Your task to perform on an android device: move an email to a new category in the gmail app Image 0: 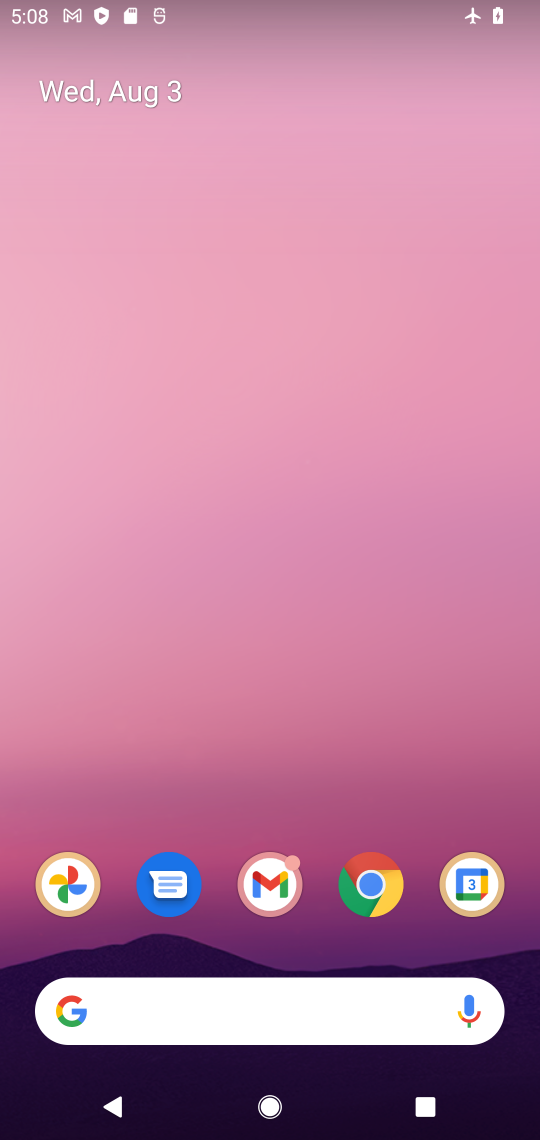
Step 0: drag from (352, 1028) to (267, 133)
Your task to perform on an android device: move an email to a new category in the gmail app Image 1: 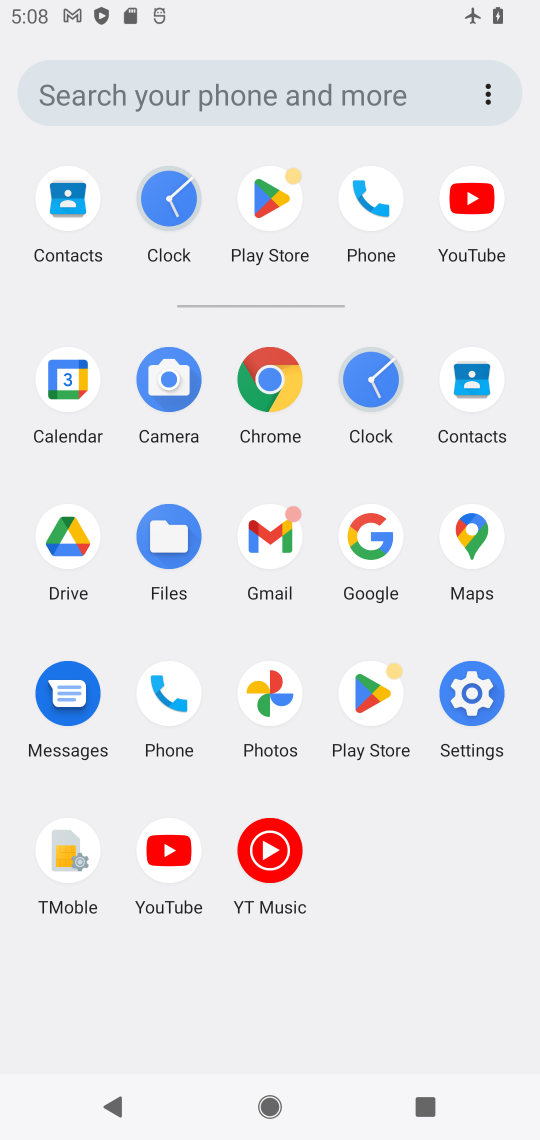
Step 1: click (452, 701)
Your task to perform on an android device: move an email to a new category in the gmail app Image 2: 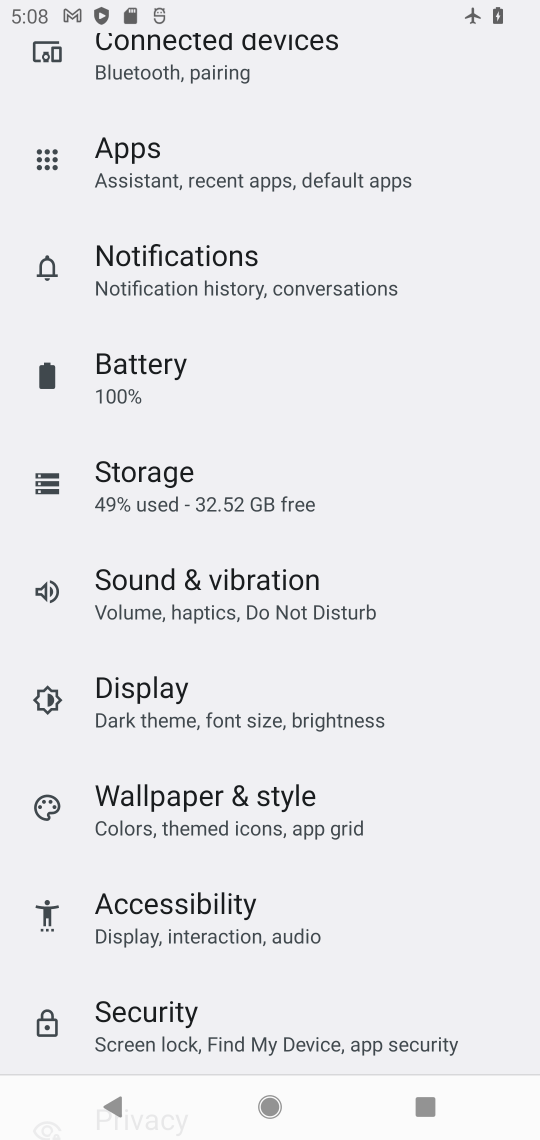
Step 2: drag from (340, 287) to (181, 955)
Your task to perform on an android device: move an email to a new category in the gmail app Image 3: 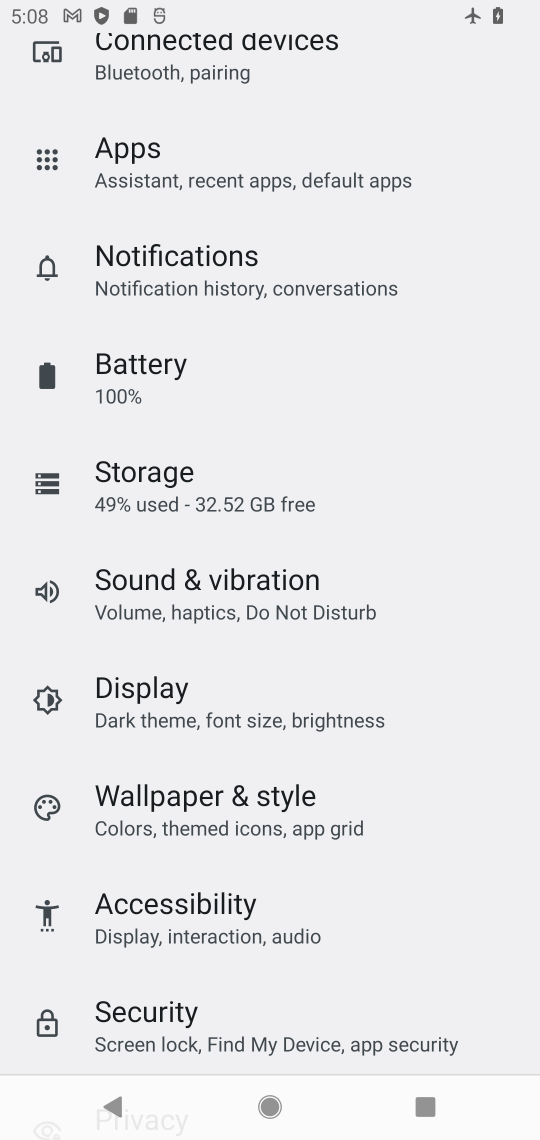
Step 3: drag from (239, 314) to (169, 1099)
Your task to perform on an android device: move an email to a new category in the gmail app Image 4: 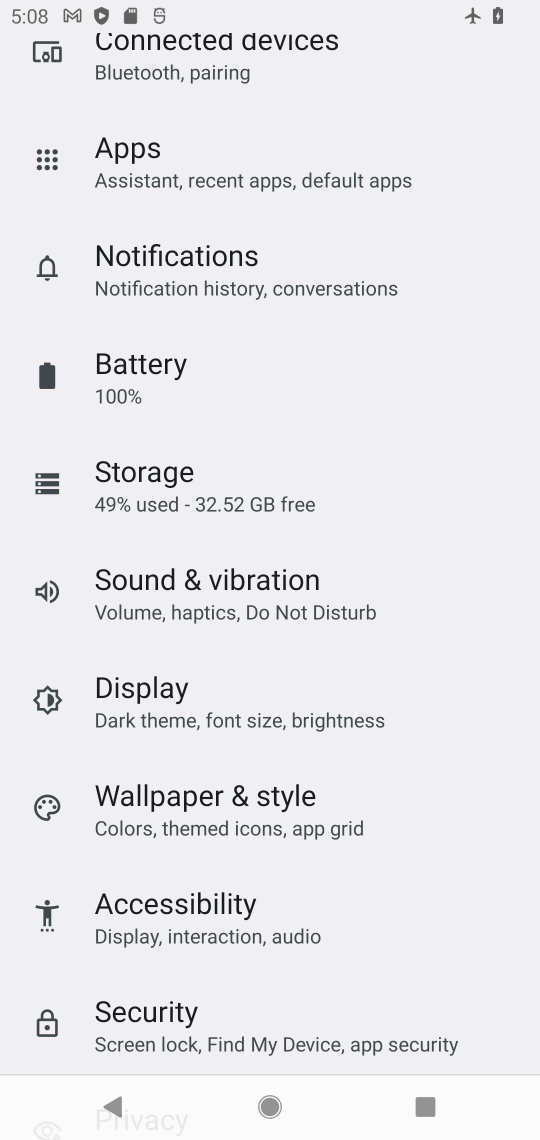
Step 4: drag from (229, 302) to (286, 1135)
Your task to perform on an android device: move an email to a new category in the gmail app Image 5: 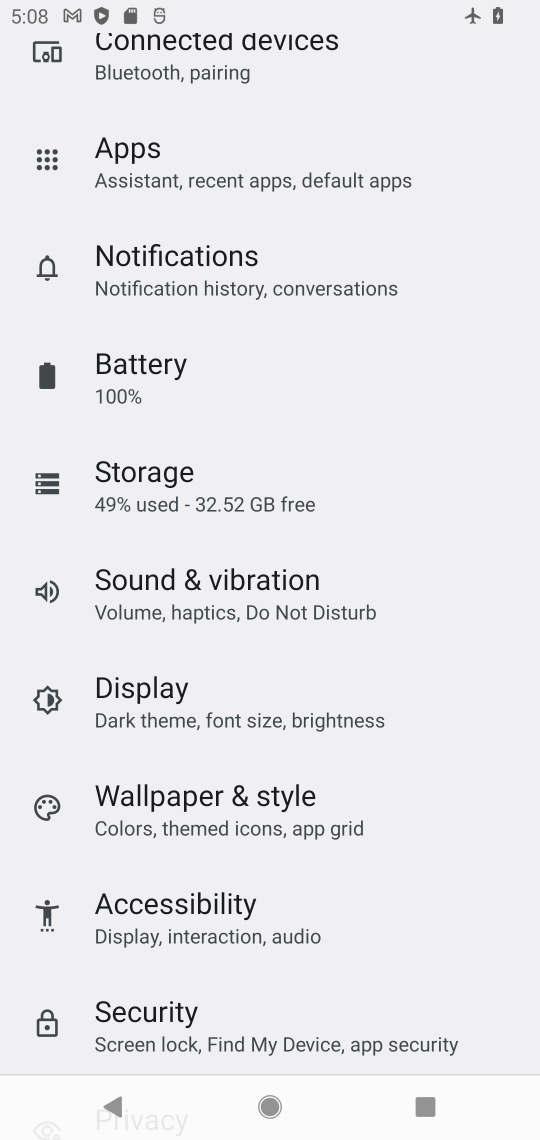
Step 5: drag from (256, 289) to (337, 1059)
Your task to perform on an android device: move an email to a new category in the gmail app Image 6: 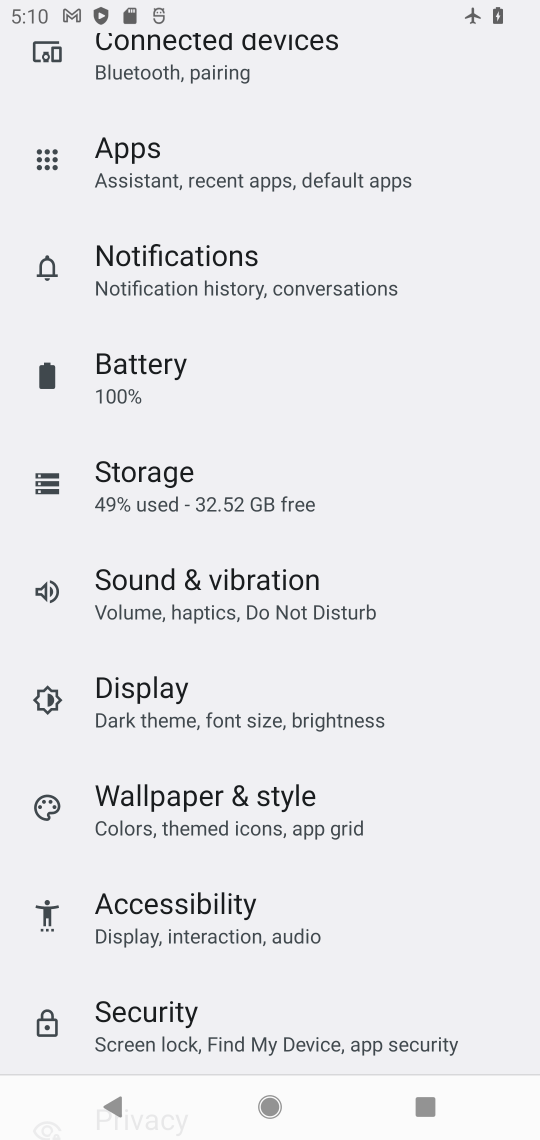
Step 6: drag from (160, 428) to (224, 1079)
Your task to perform on an android device: move an email to a new category in the gmail app Image 7: 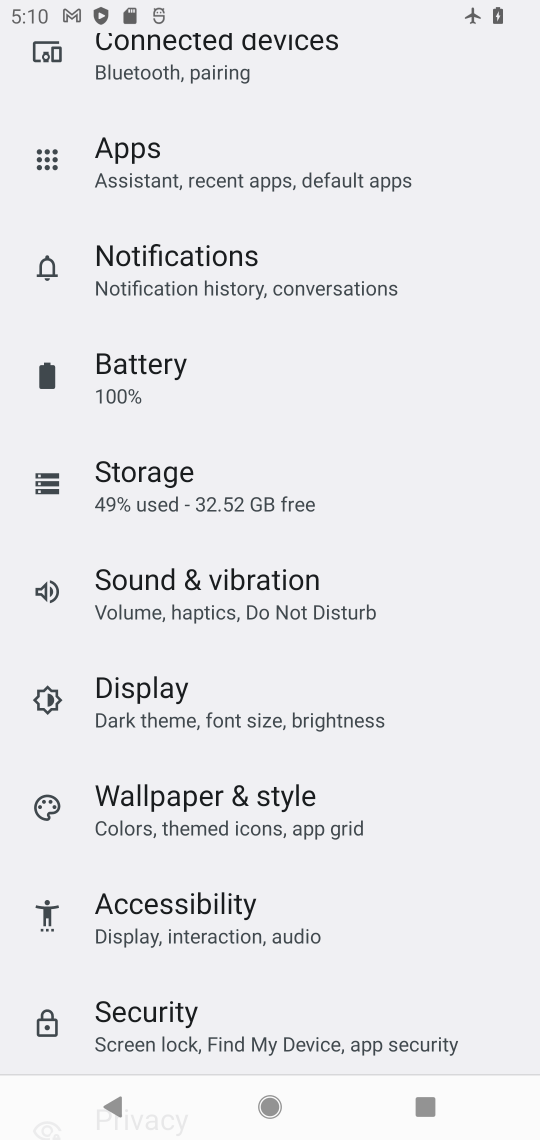
Step 7: press home button
Your task to perform on an android device: move an email to a new category in the gmail app Image 8: 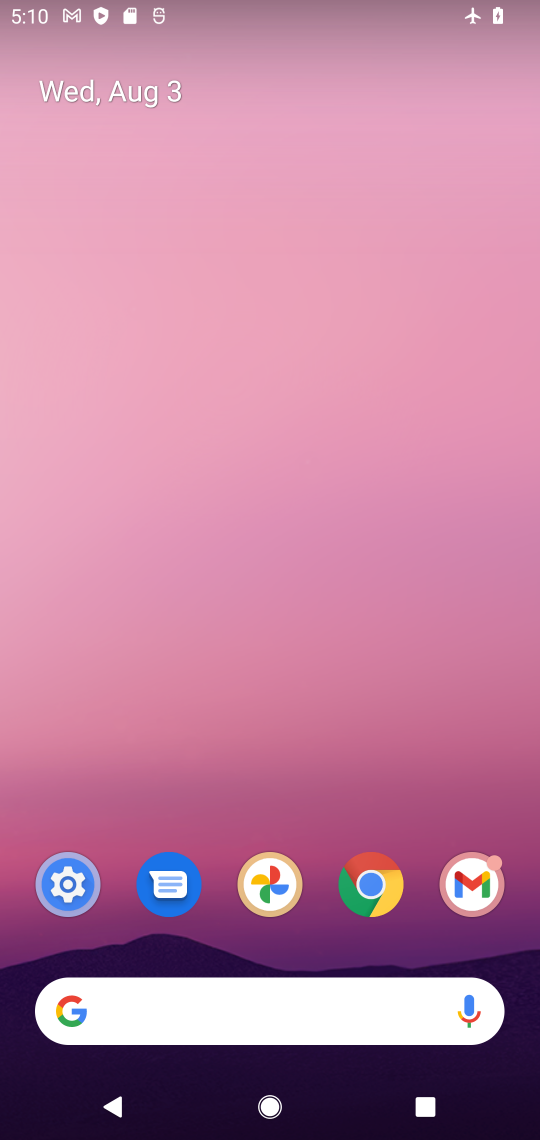
Step 8: drag from (294, 941) to (331, 170)
Your task to perform on an android device: move an email to a new category in the gmail app Image 9: 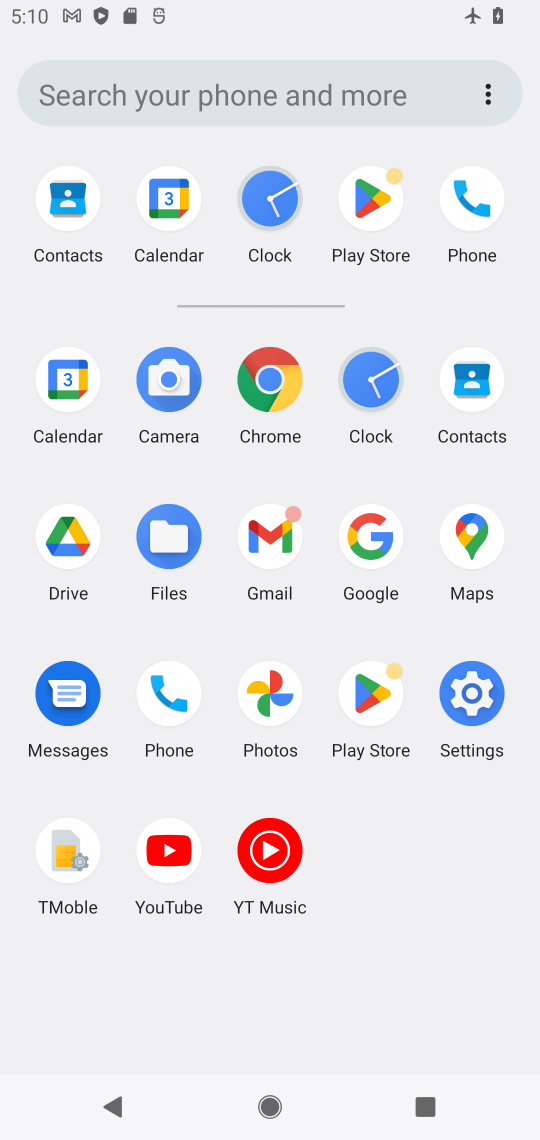
Step 9: click (258, 548)
Your task to perform on an android device: move an email to a new category in the gmail app Image 10: 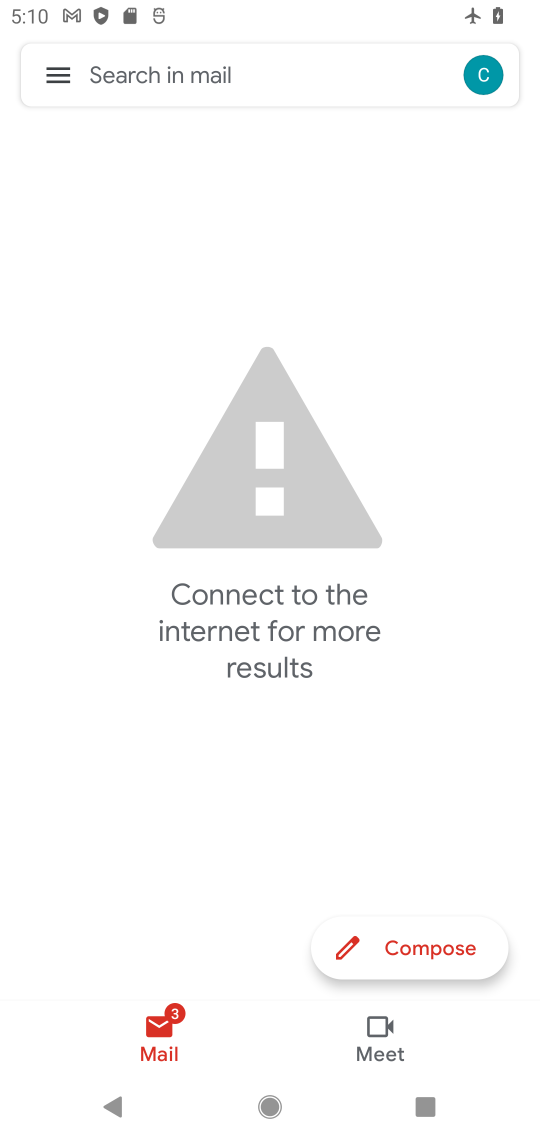
Step 10: task complete